Your task to perform on an android device: open the mobile data screen to see how much data has been used Image 0: 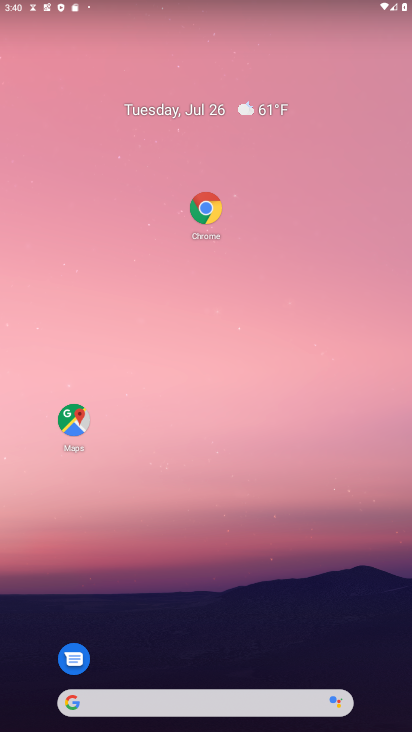
Step 0: drag from (183, 543) to (323, 45)
Your task to perform on an android device: open the mobile data screen to see how much data has been used Image 1: 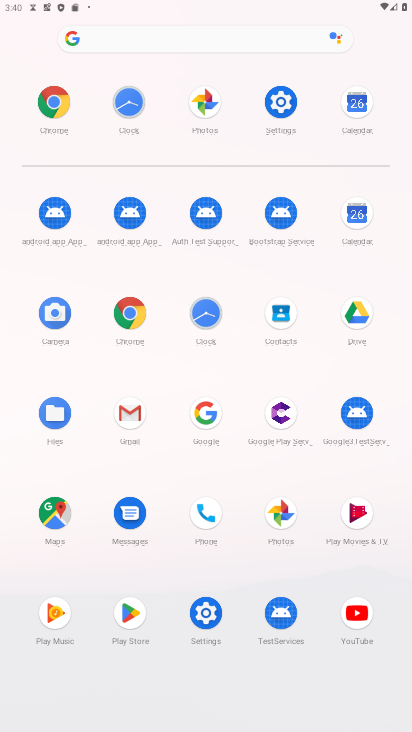
Step 1: click (275, 118)
Your task to perform on an android device: open the mobile data screen to see how much data has been used Image 2: 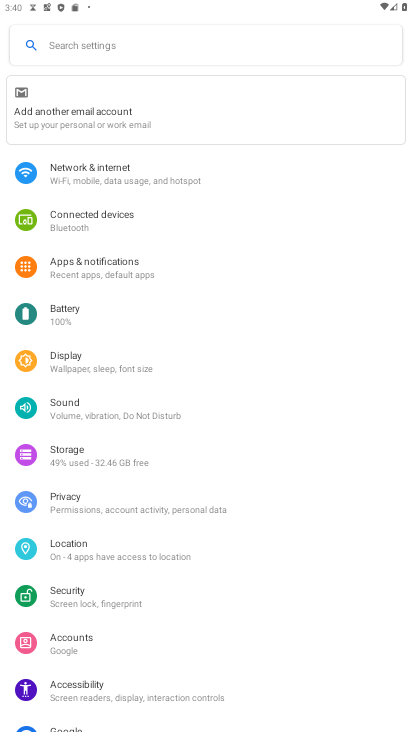
Step 2: click (70, 182)
Your task to perform on an android device: open the mobile data screen to see how much data has been used Image 3: 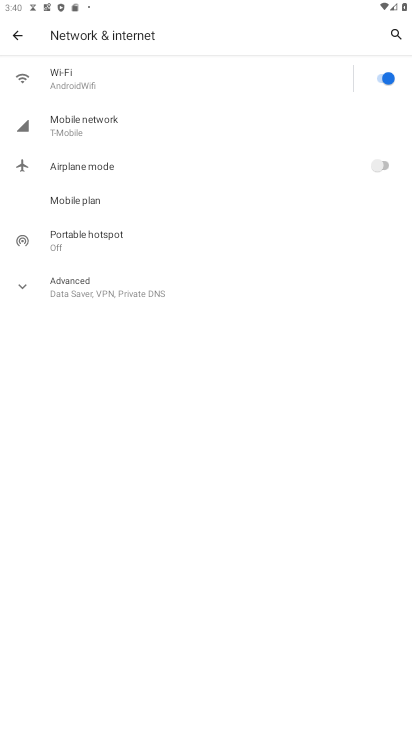
Step 3: click (128, 130)
Your task to perform on an android device: open the mobile data screen to see how much data has been used Image 4: 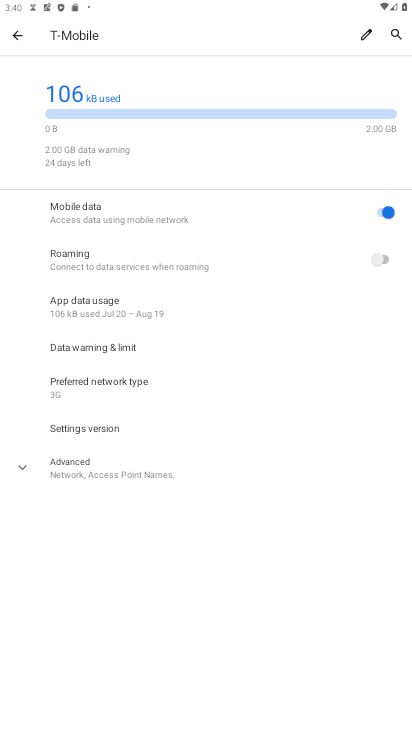
Step 4: task complete